Your task to perform on an android device: Open the contacts Image 0: 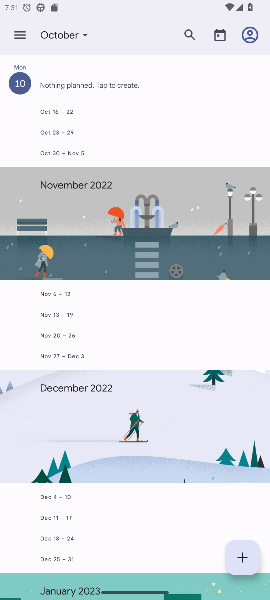
Step 0: press home button
Your task to perform on an android device: Open the contacts Image 1: 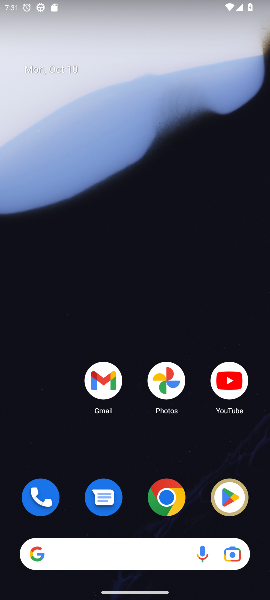
Step 1: drag from (141, 425) to (153, 81)
Your task to perform on an android device: Open the contacts Image 2: 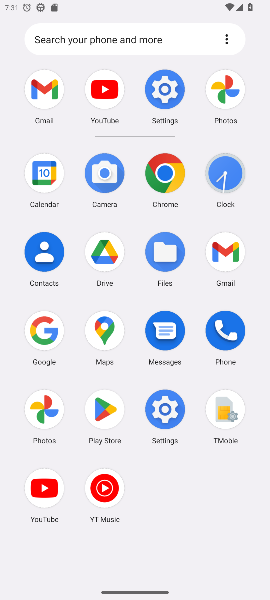
Step 2: click (42, 236)
Your task to perform on an android device: Open the contacts Image 3: 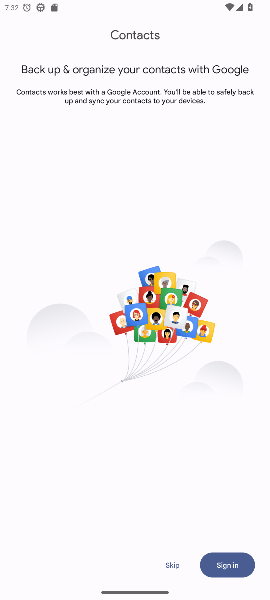
Step 3: click (168, 553)
Your task to perform on an android device: Open the contacts Image 4: 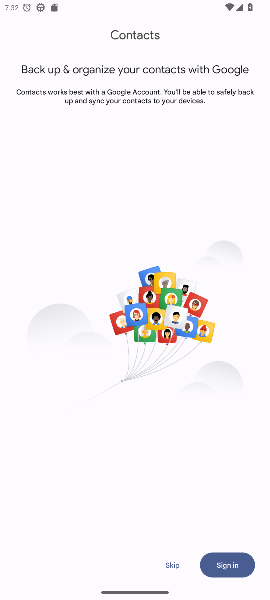
Step 4: click (172, 560)
Your task to perform on an android device: Open the contacts Image 5: 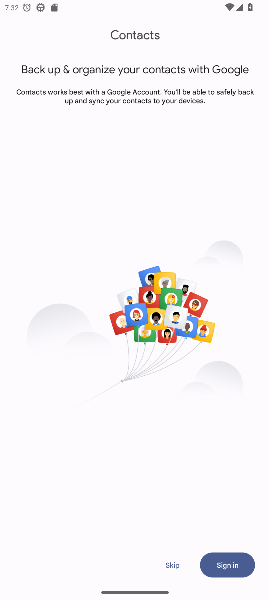
Step 5: click (168, 573)
Your task to perform on an android device: Open the contacts Image 6: 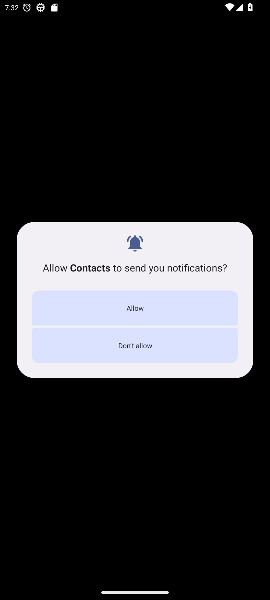
Step 6: click (142, 313)
Your task to perform on an android device: Open the contacts Image 7: 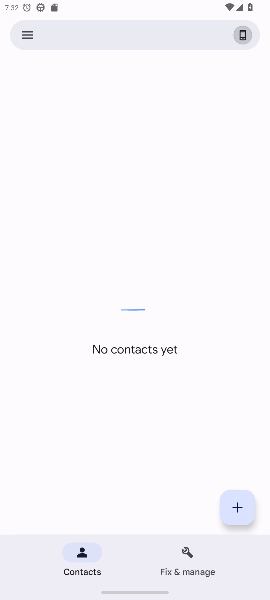
Step 7: click (139, 309)
Your task to perform on an android device: Open the contacts Image 8: 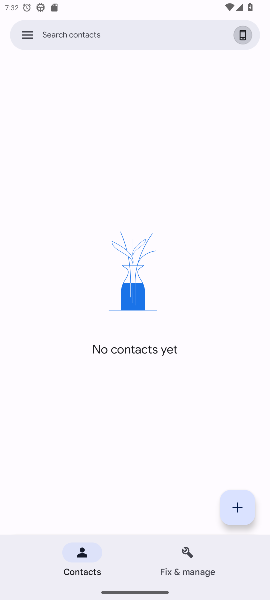
Step 8: click (61, 558)
Your task to perform on an android device: Open the contacts Image 9: 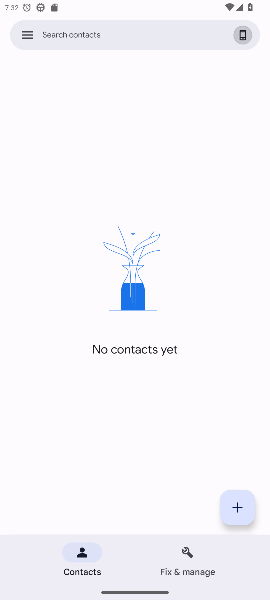
Step 9: click (61, 554)
Your task to perform on an android device: Open the contacts Image 10: 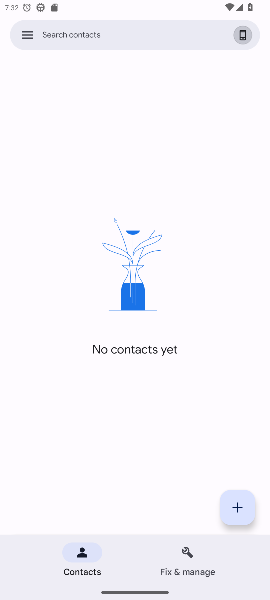
Step 10: click (61, 554)
Your task to perform on an android device: Open the contacts Image 11: 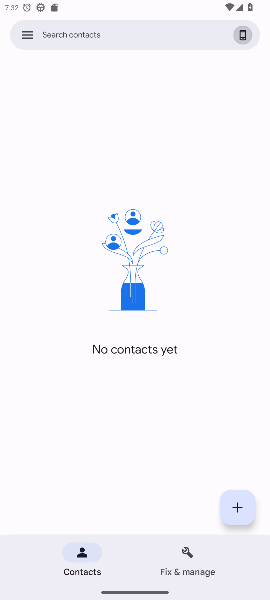
Step 11: task complete